Your task to perform on an android device: Turn on the flashlight Image 0: 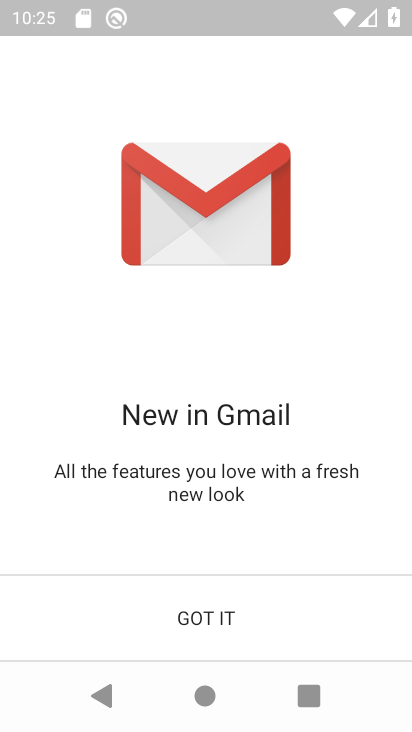
Step 0: click (242, 629)
Your task to perform on an android device: Turn on the flashlight Image 1: 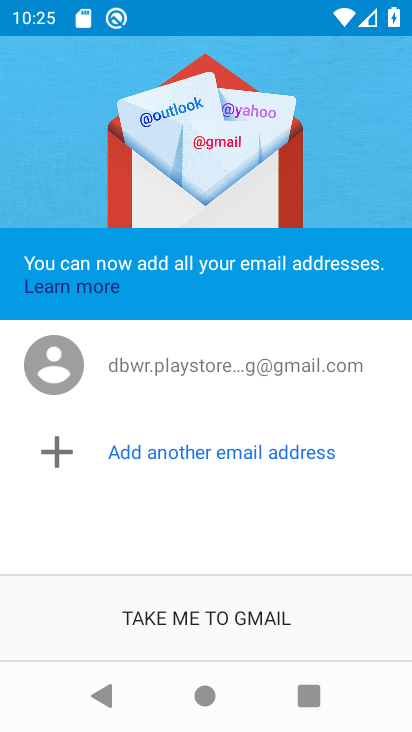
Step 1: task complete